Your task to perform on an android device: Search for sushi restaurants on Maps Image 0: 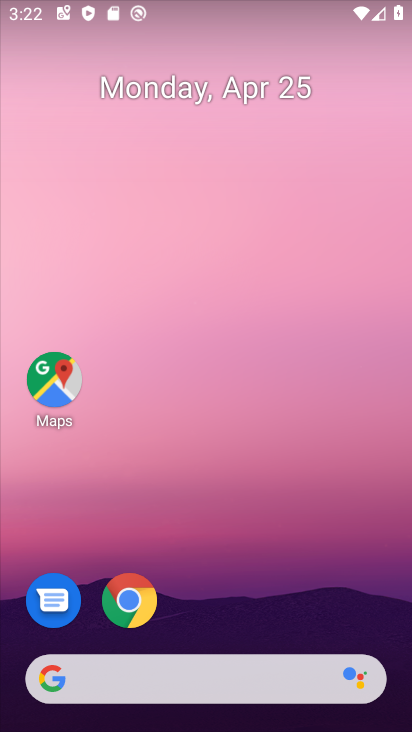
Step 0: drag from (335, 414) to (372, 9)
Your task to perform on an android device: Search for sushi restaurants on Maps Image 1: 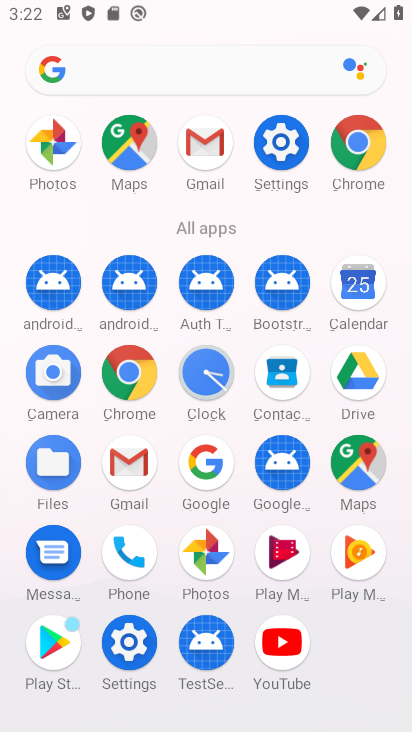
Step 1: click (137, 149)
Your task to perform on an android device: Search for sushi restaurants on Maps Image 2: 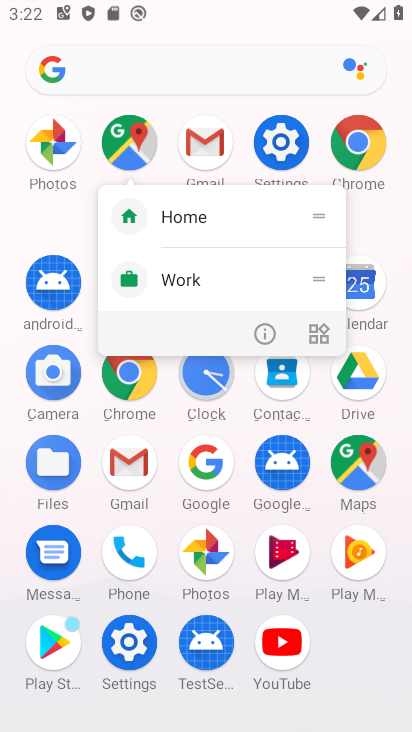
Step 2: click (137, 149)
Your task to perform on an android device: Search for sushi restaurants on Maps Image 3: 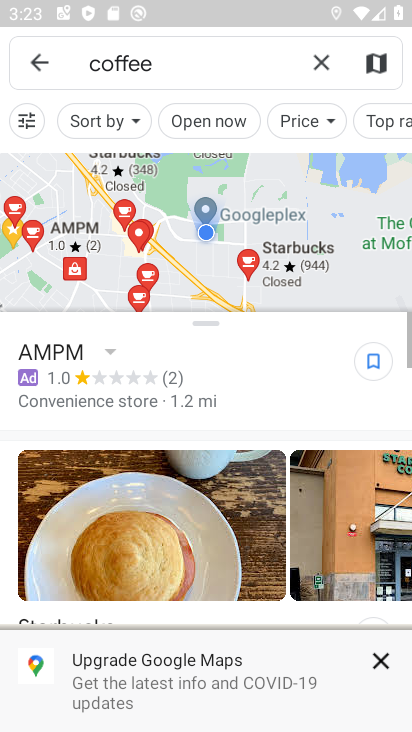
Step 3: click (308, 61)
Your task to perform on an android device: Search for sushi restaurants on Maps Image 4: 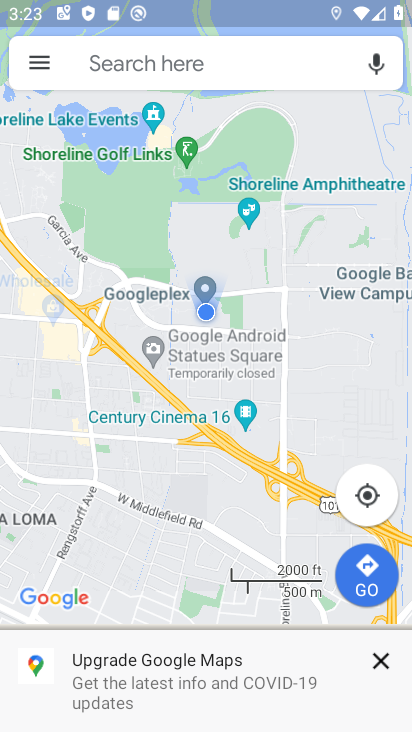
Step 4: click (179, 64)
Your task to perform on an android device: Search for sushi restaurants on Maps Image 5: 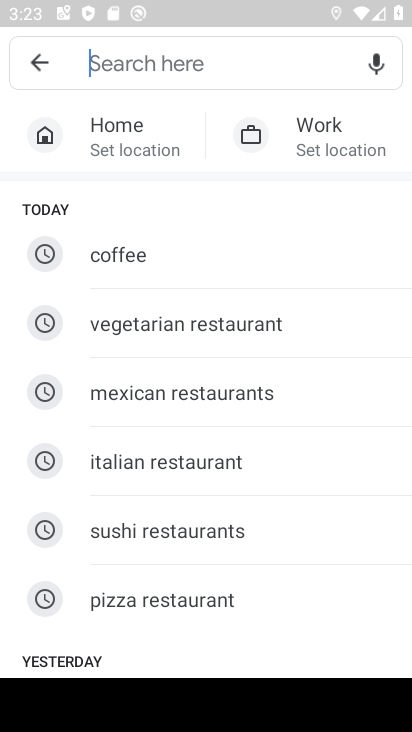
Step 5: click (176, 539)
Your task to perform on an android device: Search for sushi restaurants on Maps Image 6: 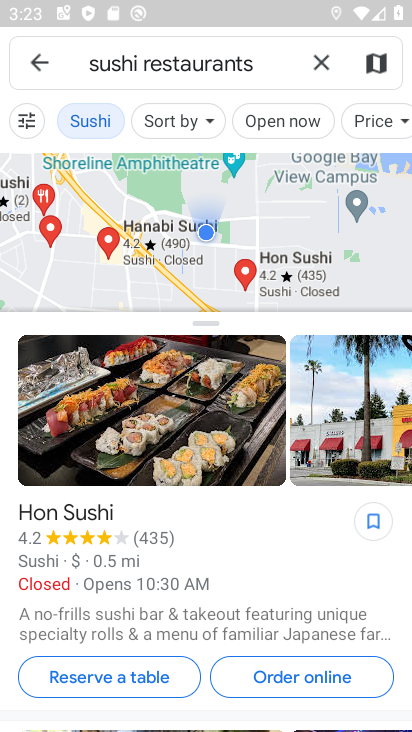
Step 6: task complete